Your task to perform on an android device: toggle wifi Image 0: 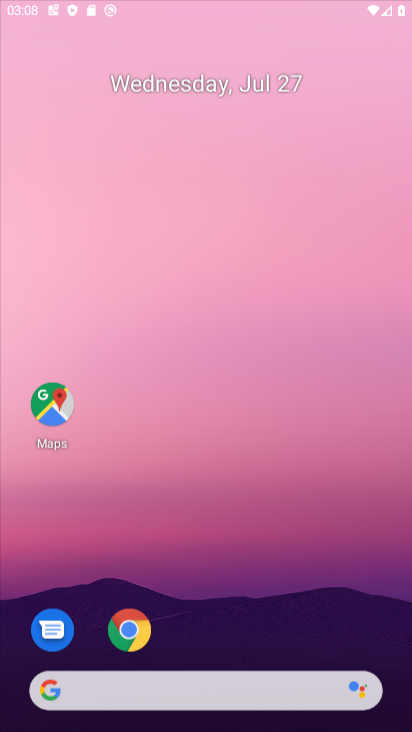
Step 0: drag from (191, 198) to (239, 118)
Your task to perform on an android device: toggle wifi Image 1: 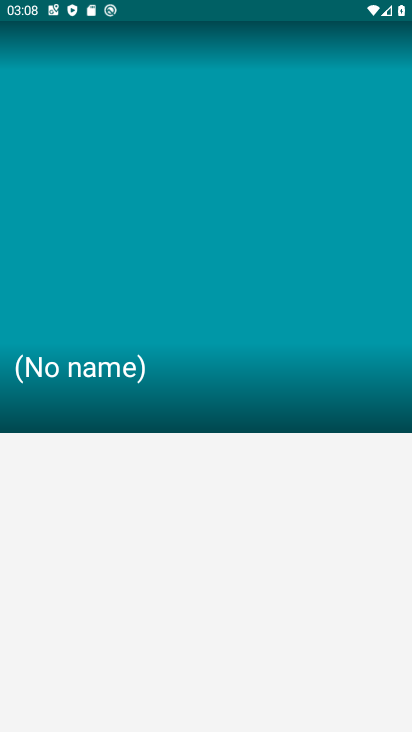
Step 1: drag from (310, 458) to (233, 153)
Your task to perform on an android device: toggle wifi Image 2: 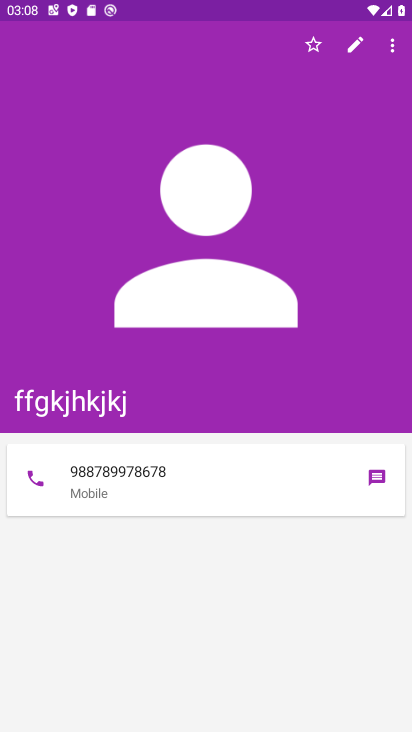
Step 2: drag from (237, 573) to (98, 185)
Your task to perform on an android device: toggle wifi Image 3: 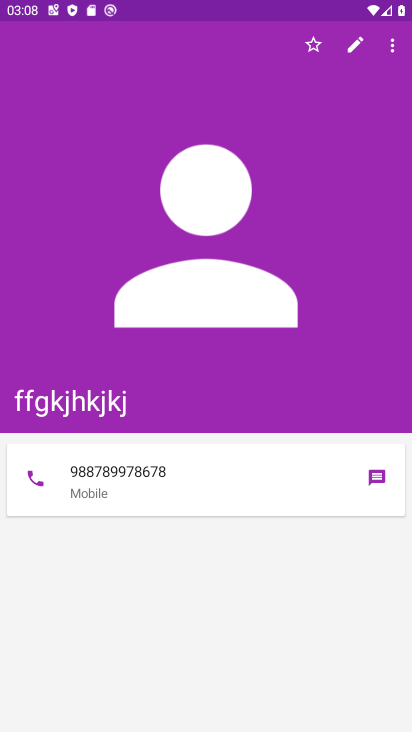
Step 3: press back button
Your task to perform on an android device: toggle wifi Image 4: 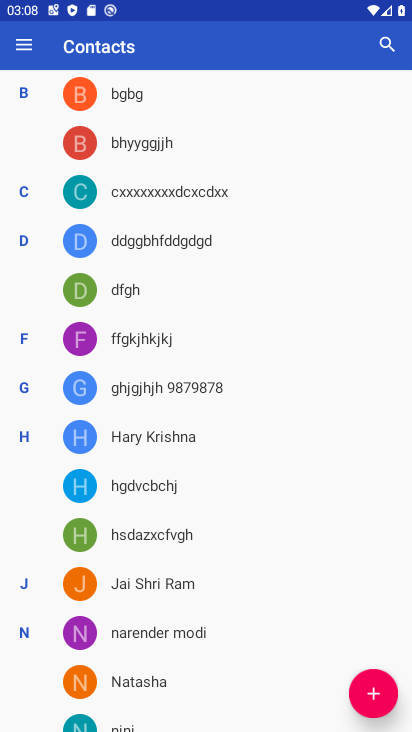
Step 4: press back button
Your task to perform on an android device: toggle wifi Image 5: 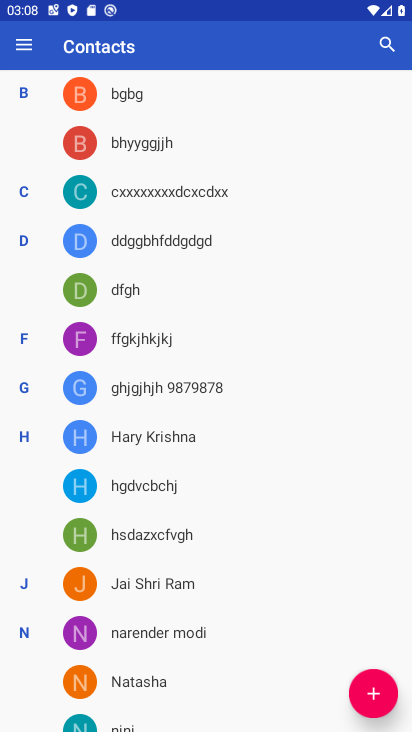
Step 5: press back button
Your task to perform on an android device: toggle wifi Image 6: 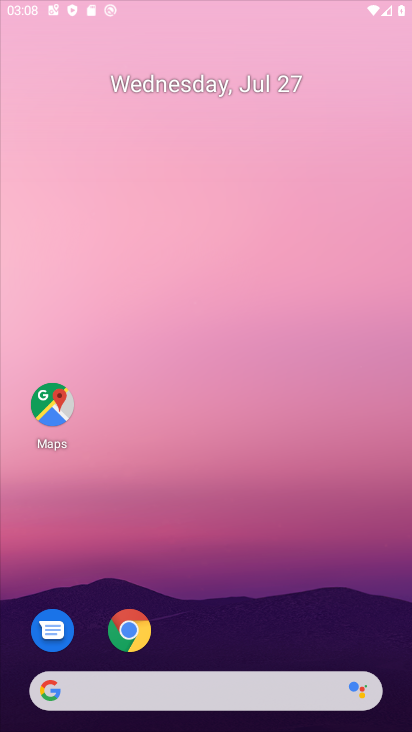
Step 6: press back button
Your task to perform on an android device: toggle wifi Image 7: 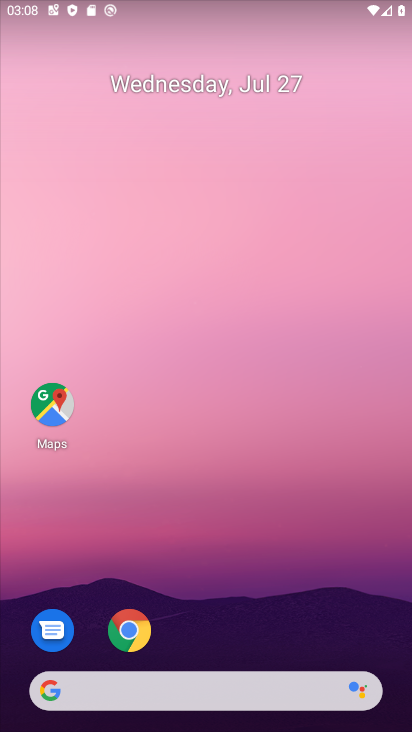
Step 7: drag from (202, 548) to (198, 5)
Your task to perform on an android device: toggle wifi Image 8: 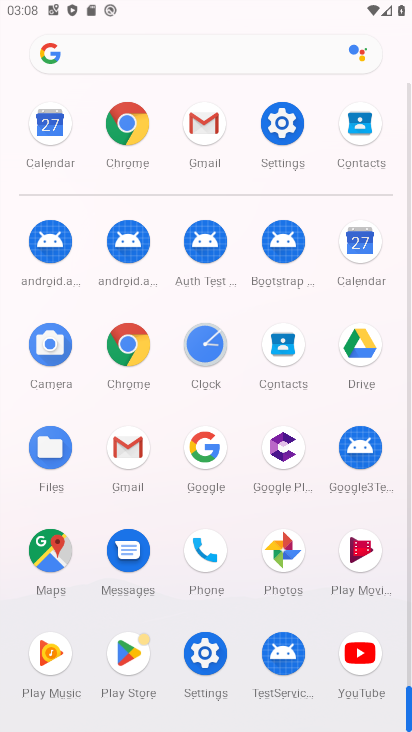
Step 8: click (280, 216)
Your task to perform on an android device: toggle wifi Image 9: 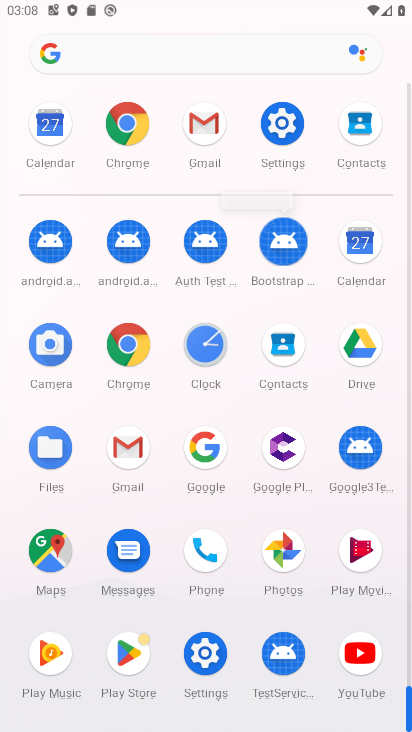
Step 9: click (285, 119)
Your task to perform on an android device: toggle wifi Image 10: 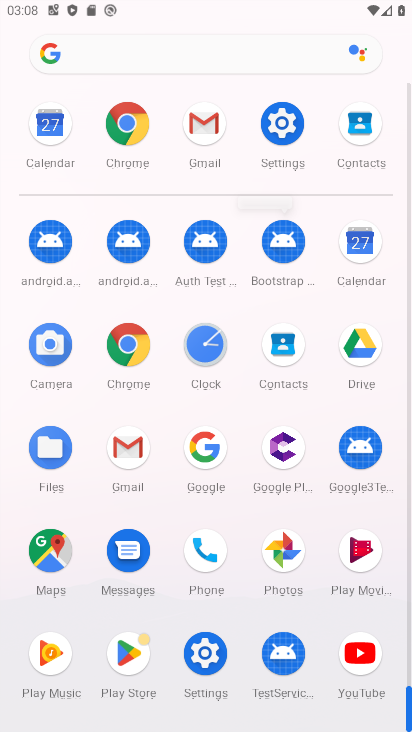
Step 10: click (286, 117)
Your task to perform on an android device: toggle wifi Image 11: 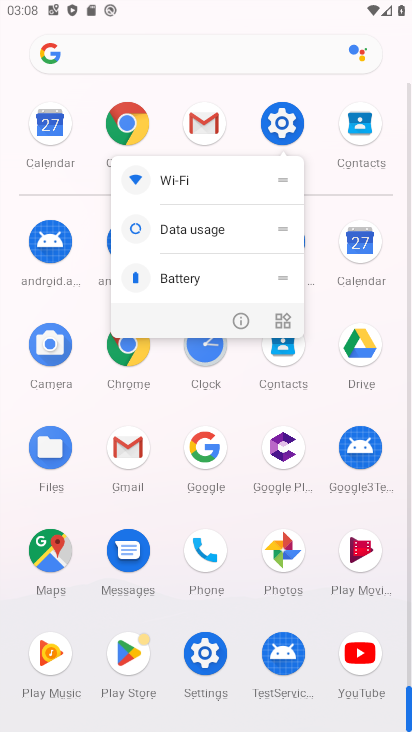
Step 11: click (278, 110)
Your task to perform on an android device: toggle wifi Image 12: 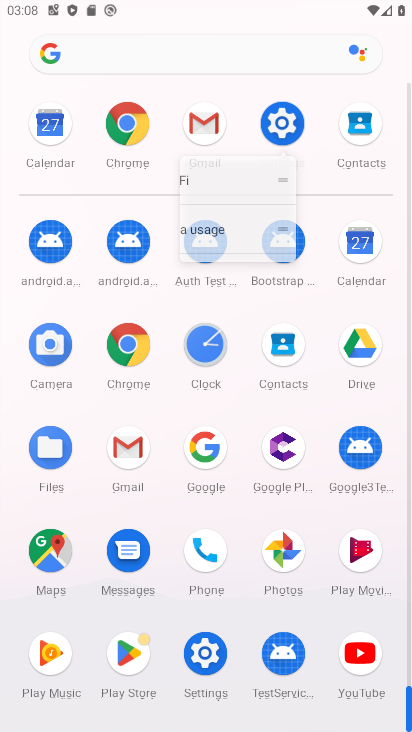
Step 12: click (278, 110)
Your task to perform on an android device: toggle wifi Image 13: 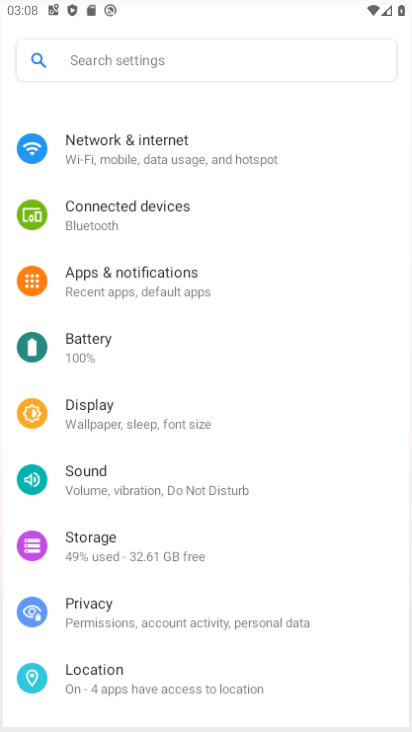
Step 13: click (286, 121)
Your task to perform on an android device: toggle wifi Image 14: 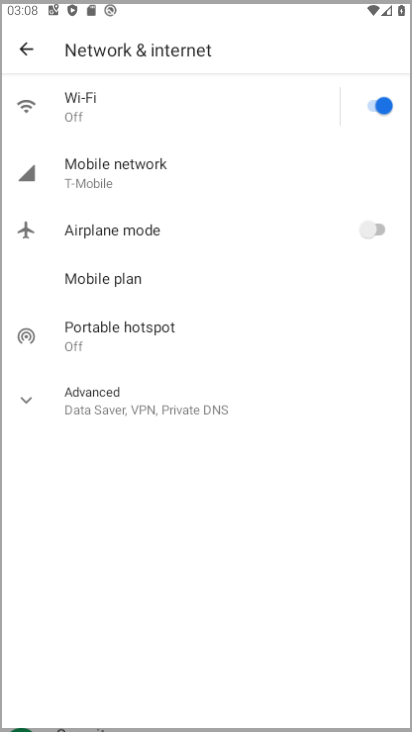
Step 14: click (144, 123)
Your task to perform on an android device: toggle wifi Image 15: 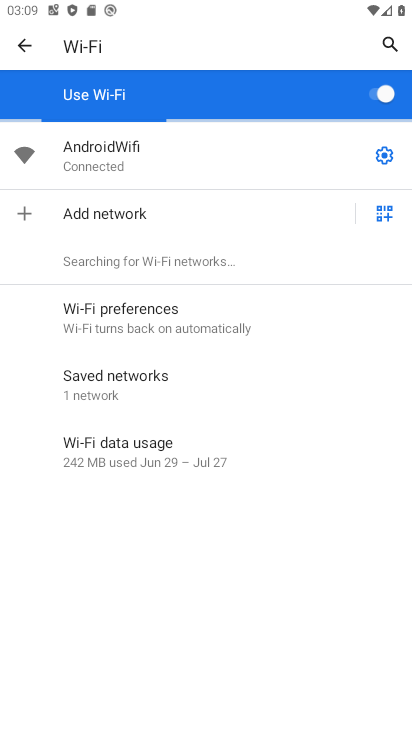
Step 15: click (378, 88)
Your task to perform on an android device: toggle wifi Image 16: 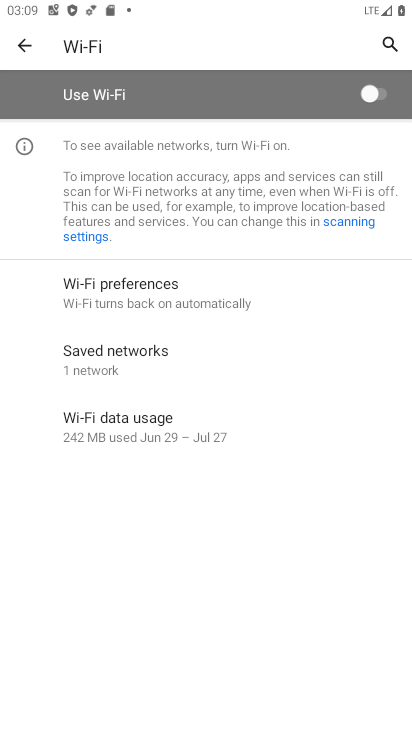
Step 16: task complete